Your task to perform on an android device: Open maps Image 0: 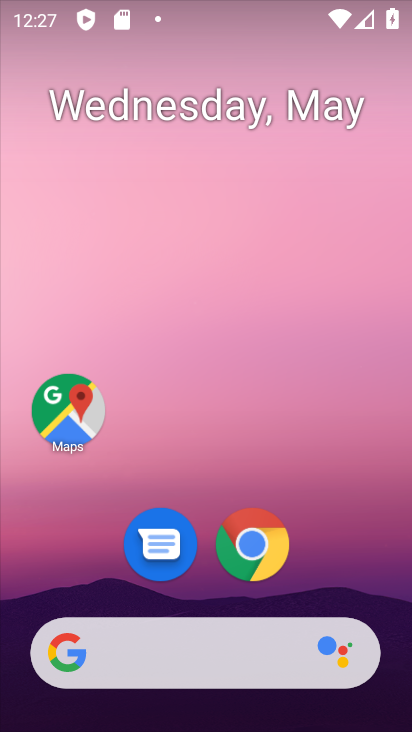
Step 0: click (74, 414)
Your task to perform on an android device: Open maps Image 1: 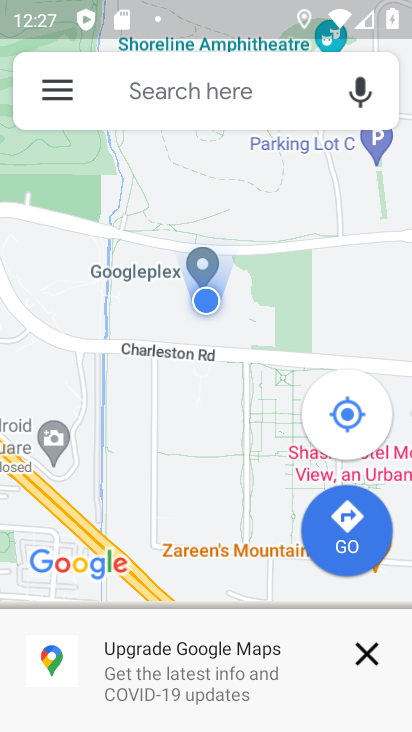
Step 1: task complete